Your task to perform on an android device: move an email to a new category in the gmail app Image 0: 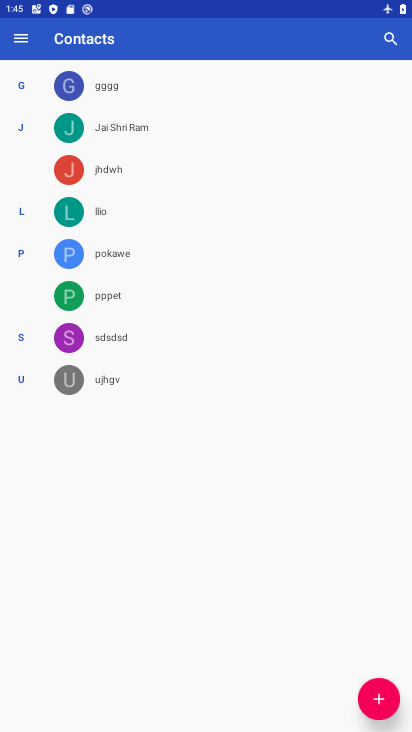
Step 0: press home button
Your task to perform on an android device: move an email to a new category in the gmail app Image 1: 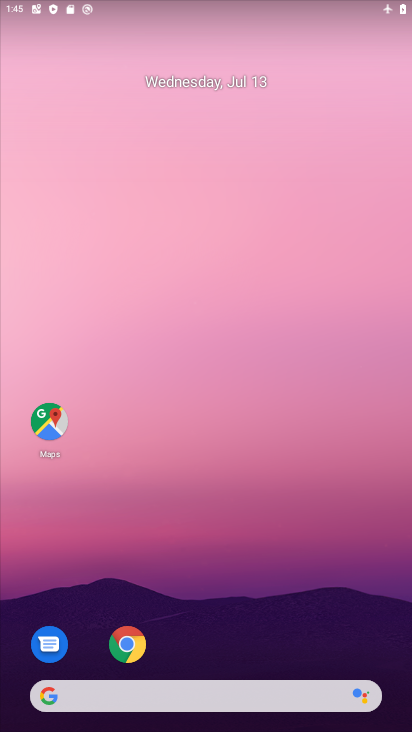
Step 1: drag from (274, 649) to (254, 116)
Your task to perform on an android device: move an email to a new category in the gmail app Image 2: 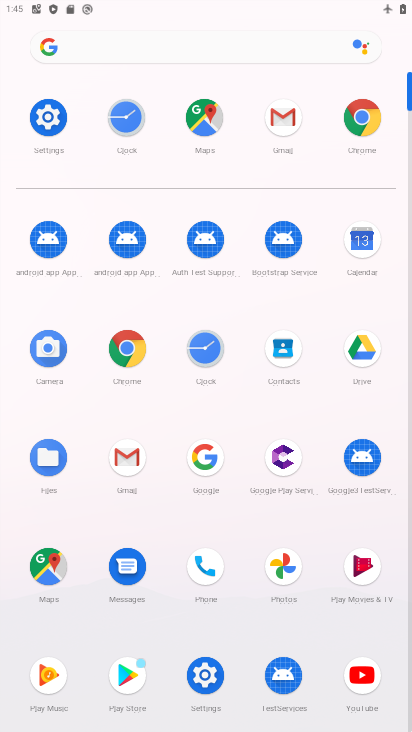
Step 2: click (279, 120)
Your task to perform on an android device: move an email to a new category in the gmail app Image 3: 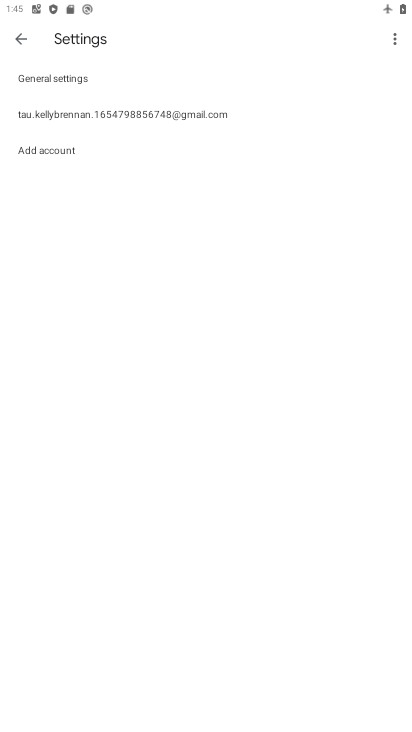
Step 3: click (23, 39)
Your task to perform on an android device: move an email to a new category in the gmail app Image 4: 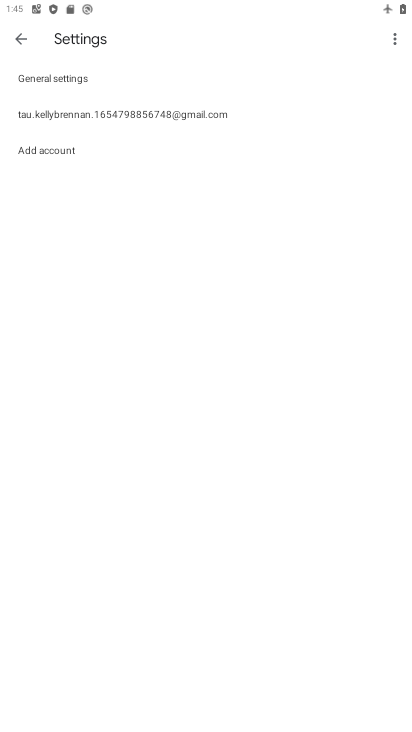
Step 4: click (25, 41)
Your task to perform on an android device: move an email to a new category in the gmail app Image 5: 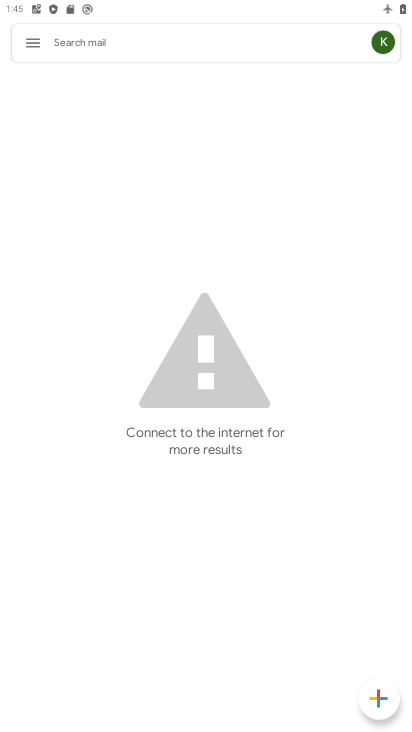
Step 5: click (28, 41)
Your task to perform on an android device: move an email to a new category in the gmail app Image 6: 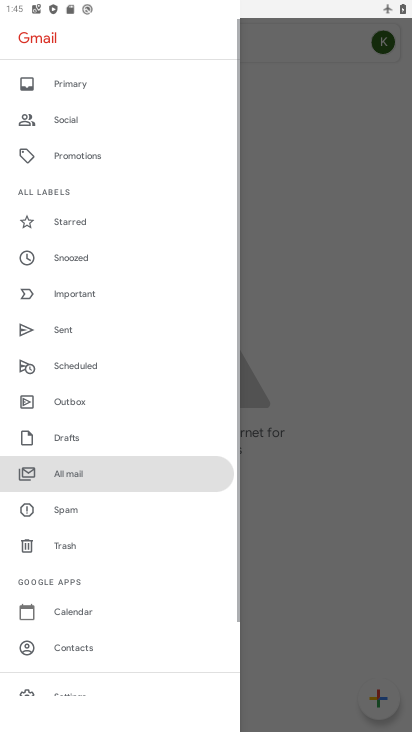
Step 6: click (84, 469)
Your task to perform on an android device: move an email to a new category in the gmail app Image 7: 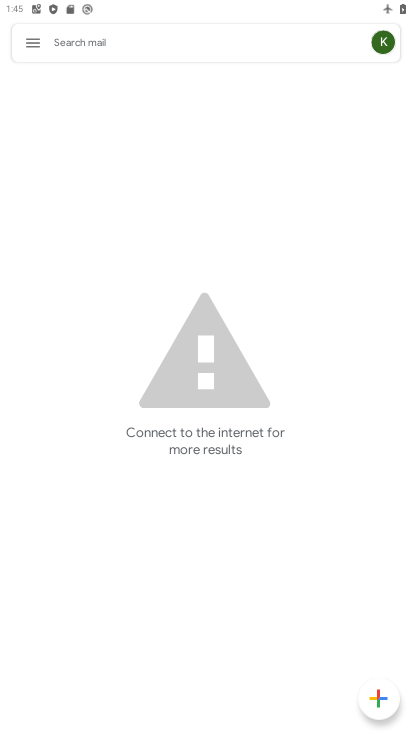
Step 7: task complete